Your task to perform on an android device: How do I get to the nearest Apple Store? Image 0: 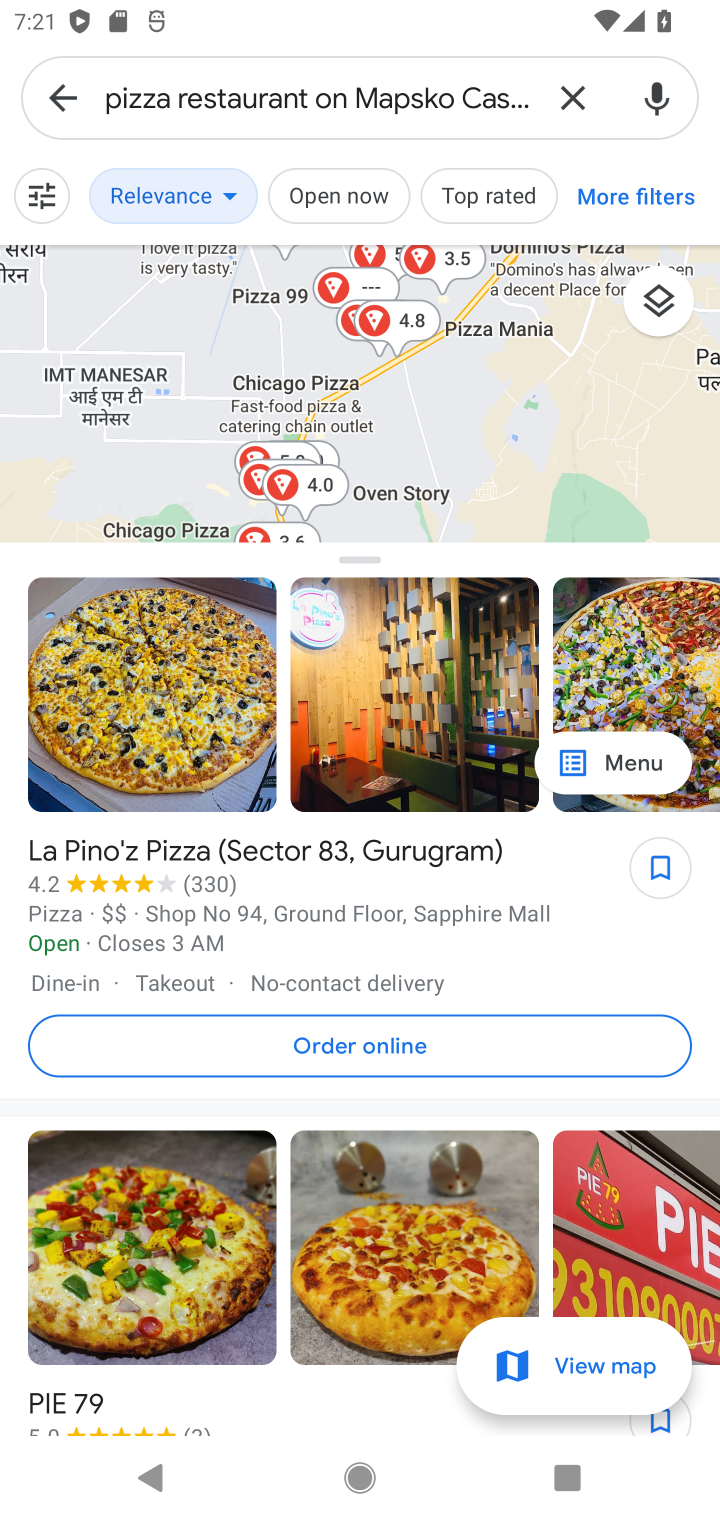
Step 0: press home button
Your task to perform on an android device: How do I get to the nearest Apple Store? Image 1: 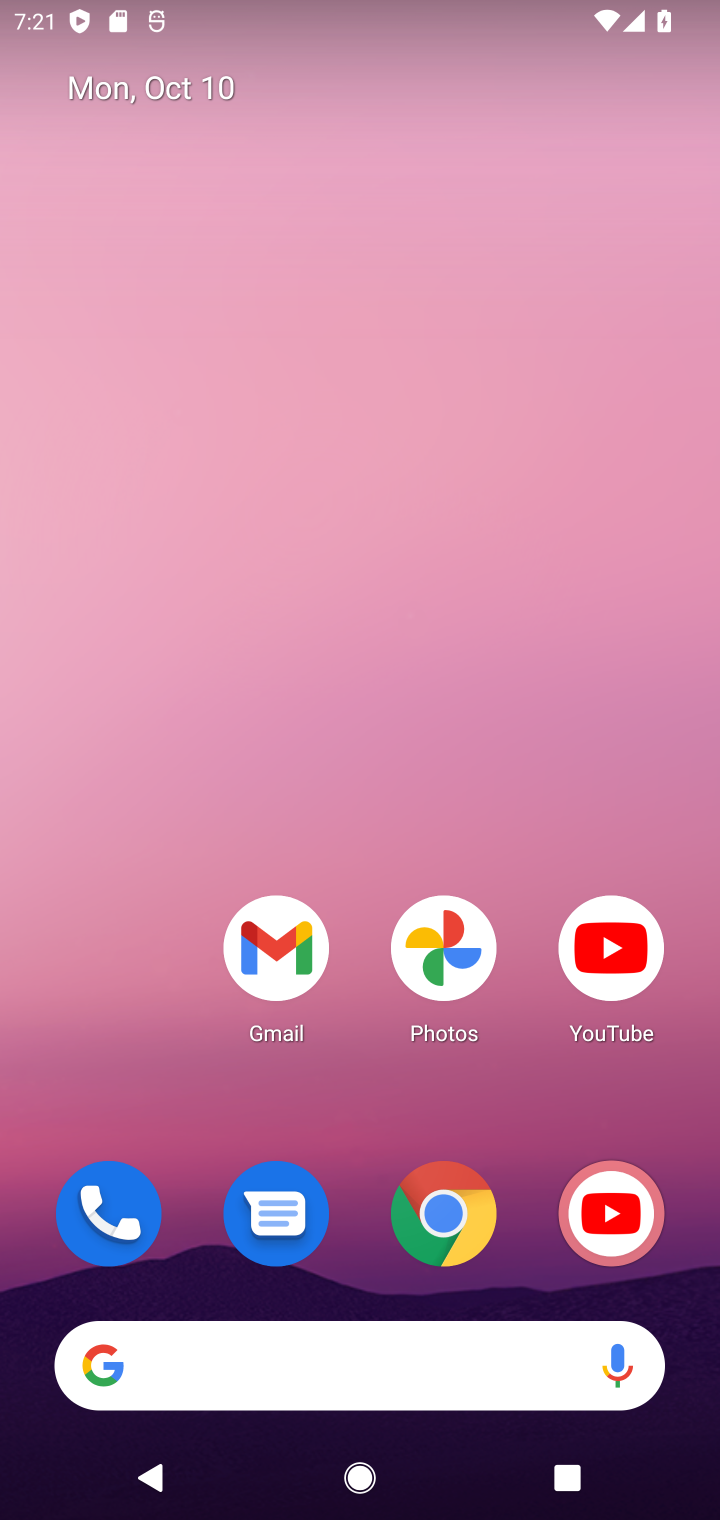
Step 1: click (224, 1352)
Your task to perform on an android device: How do I get to the nearest Apple Store? Image 2: 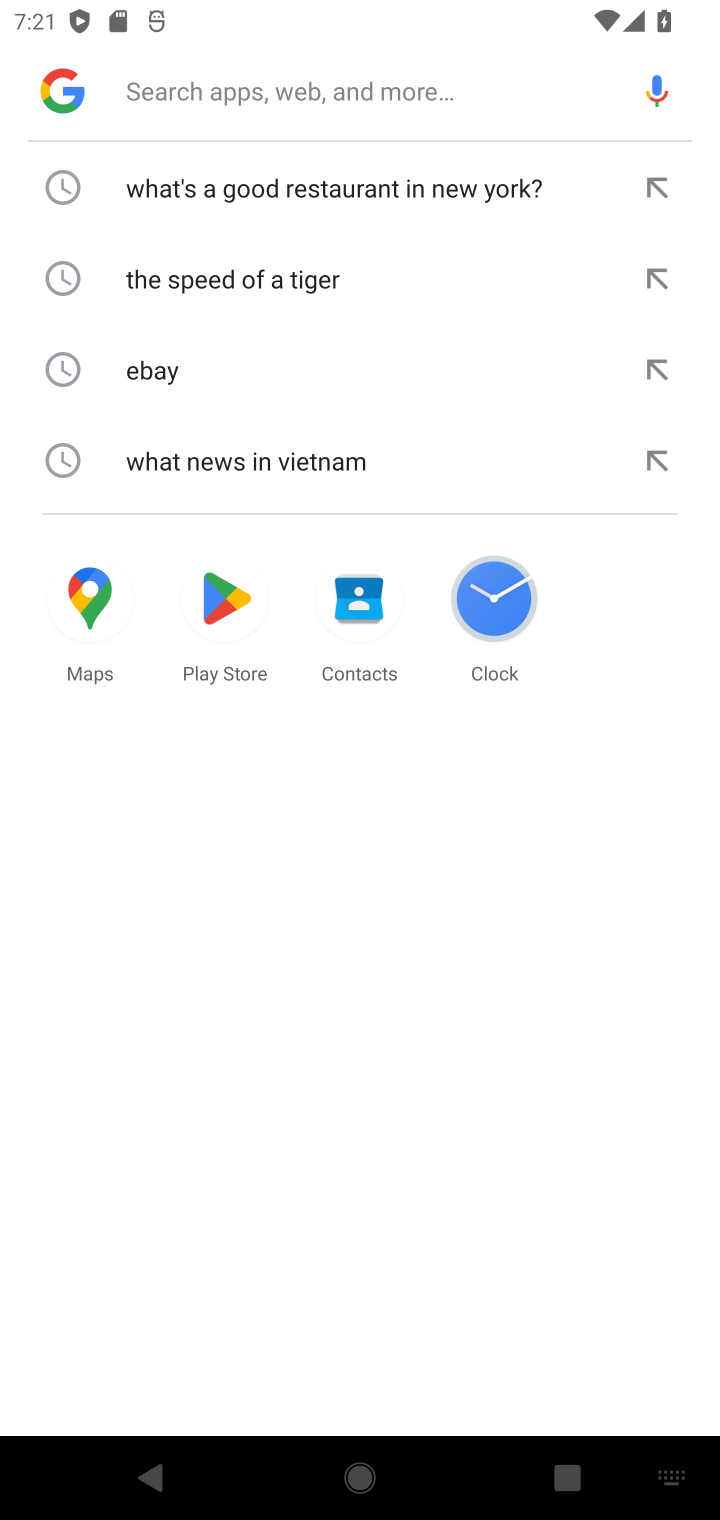
Step 2: click (217, 85)
Your task to perform on an android device: How do I get to the nearest Apple Store? Image 3: 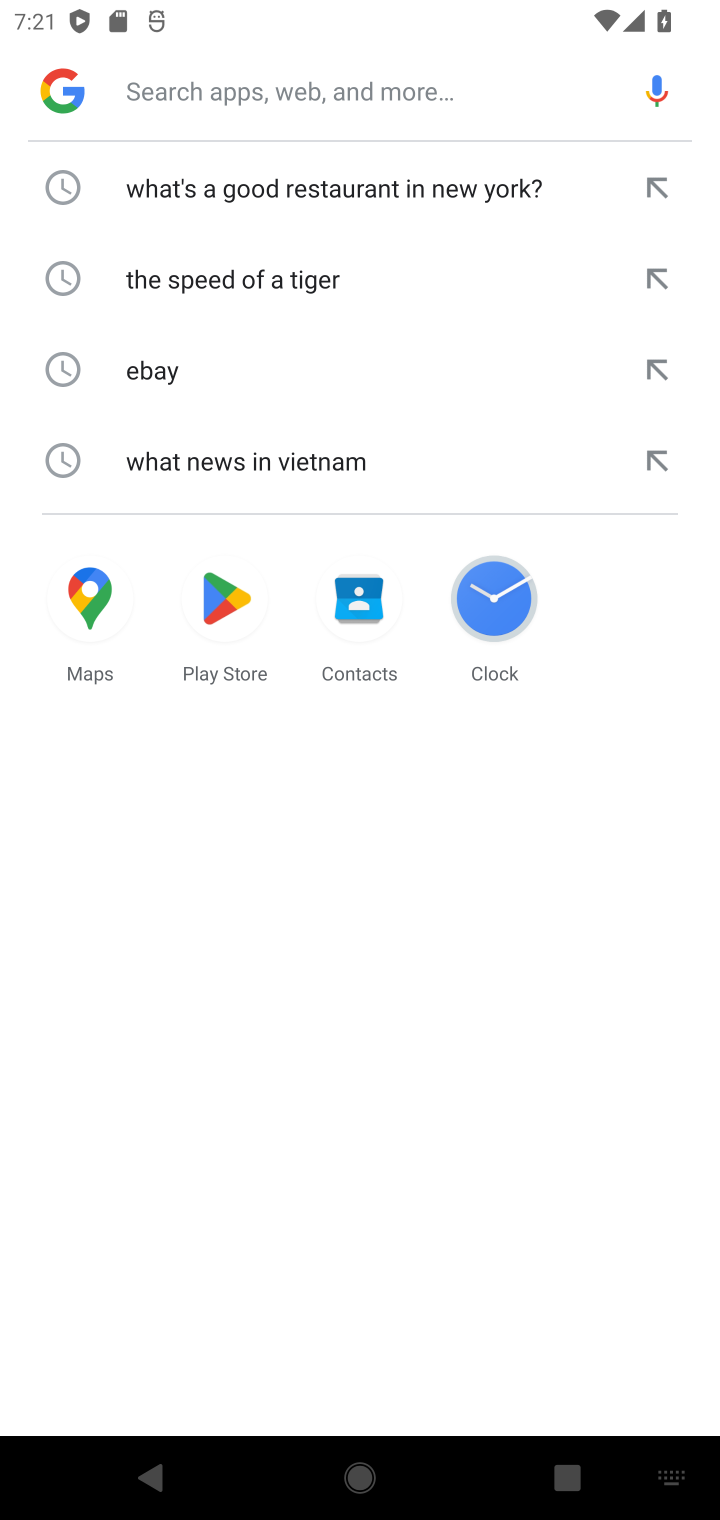
Step 3: type "How do I get to the nearest Apple Store?"
Your task to perform on an android device: How do I get to the nearest Apple Store? Image 4: 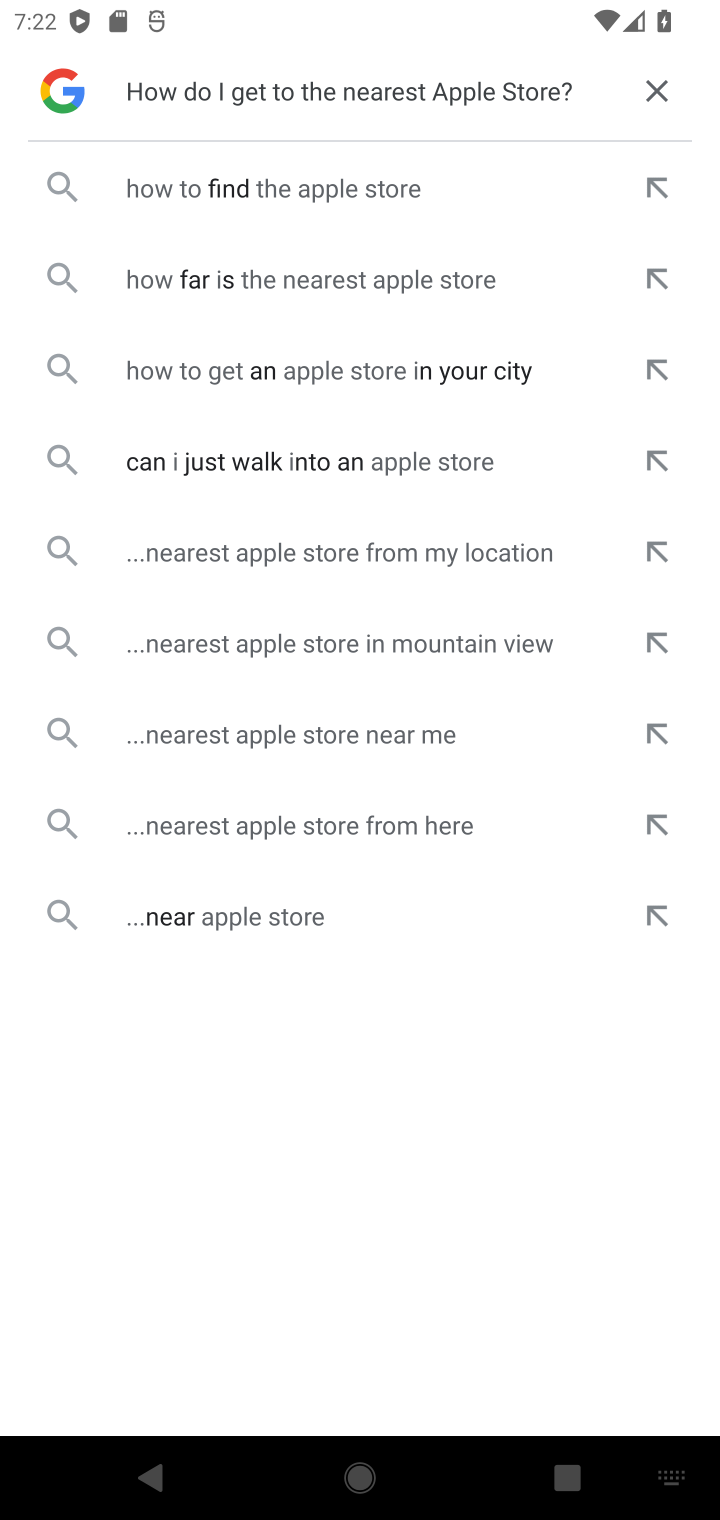
Step 4: click (328, 187)
Your task to perform on an android device: How do I get to the nearest Apple Store? Image 5: 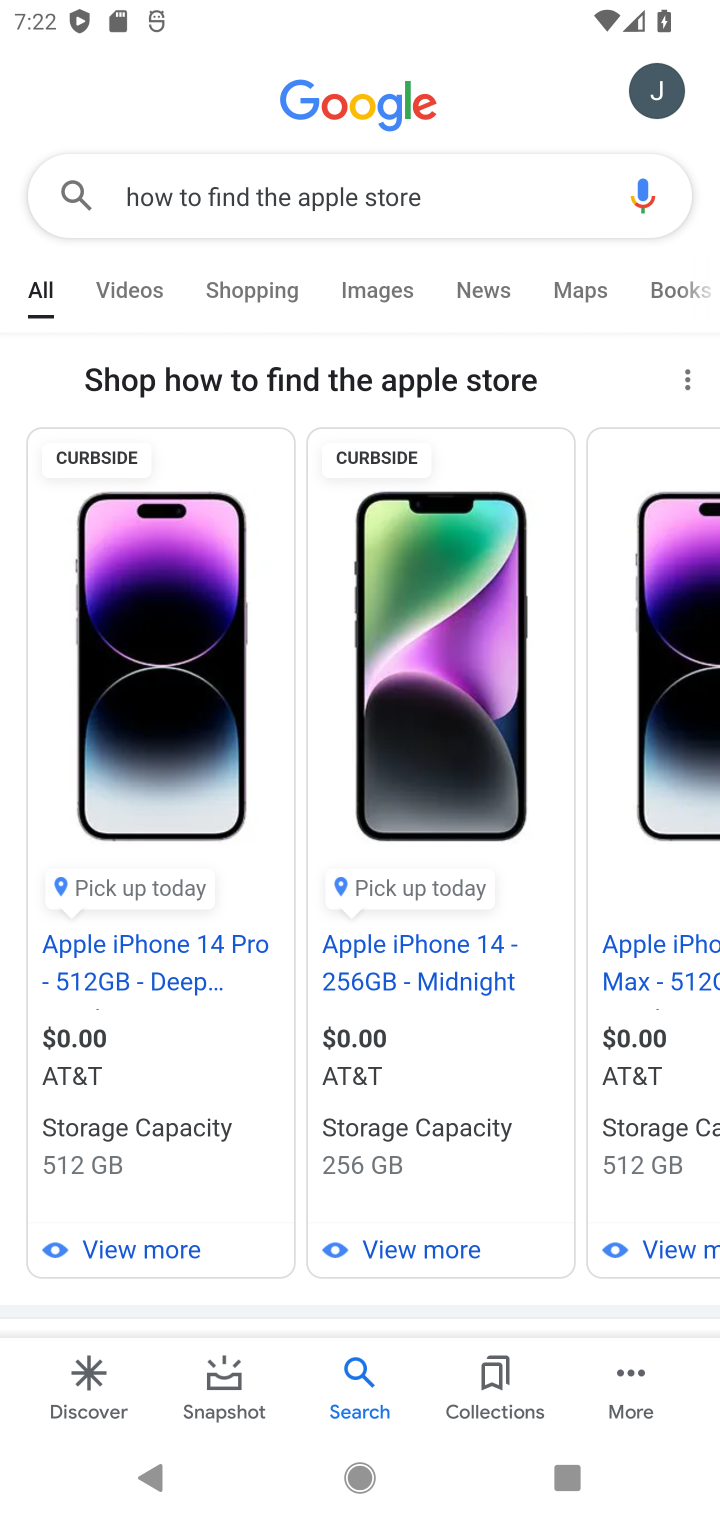
Step 5: task complete